Your task to perform on an android device: toggle improve location accuracy Image 0: 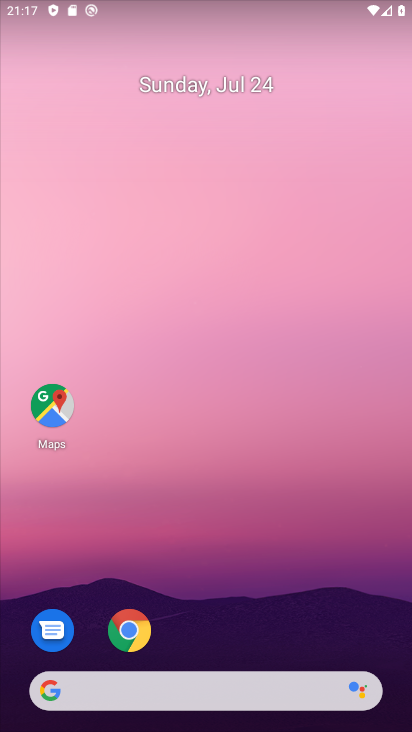
Step 0: drag from (319, 632) to (329, 16)
Your task to perform on an android device: toggle improve location accuracy Image 1: 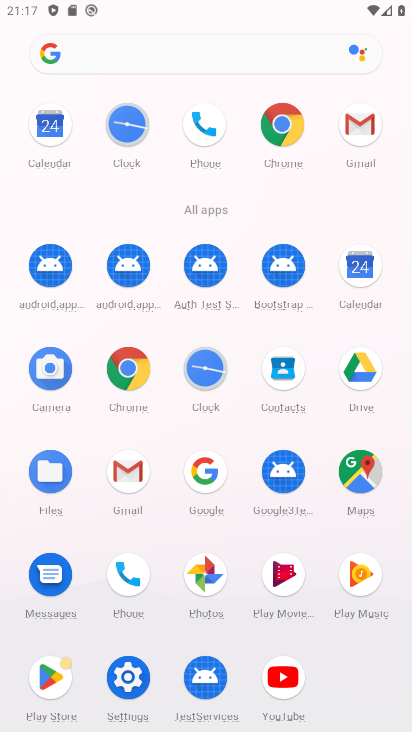
Step 1: click (125, 665)
Your task to perform on an android device: toggle improve location accuracy Image 2: 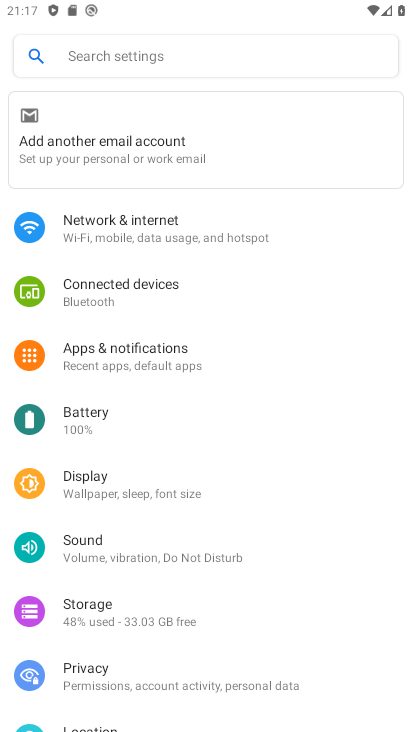
Step 2: drag from (160, 653) to (168, 240)
Your task to perform on an android device: toggle improve location accuracy Image 3: 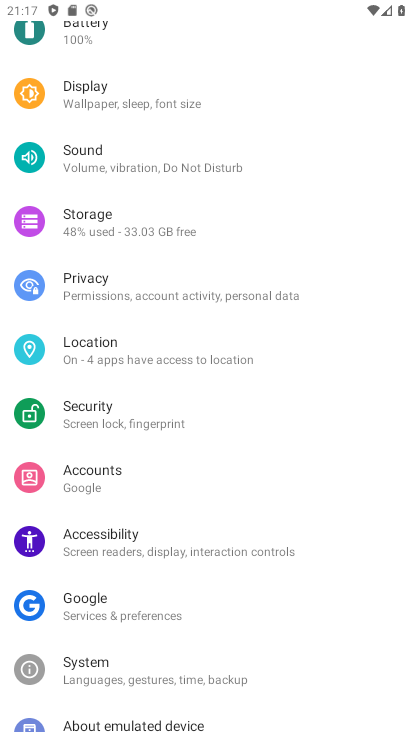
Step 3: click (106, 354)
Your task to perform on an android device: toggle improve location accuracy Image 4: 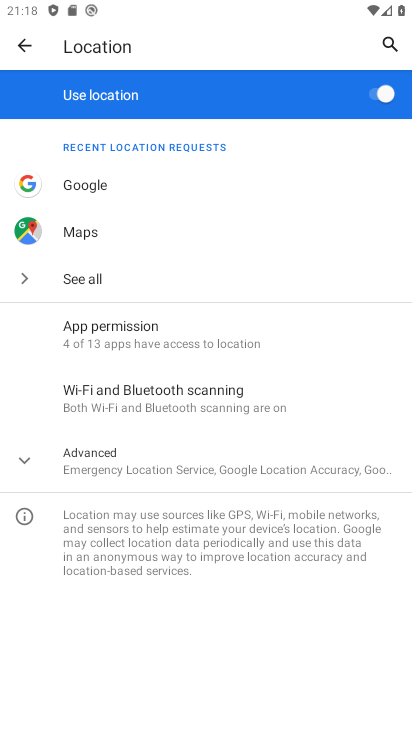
Step 4: click (119, 459)
Your task to perform on an android device: toggle improve location accuracy Image 5: 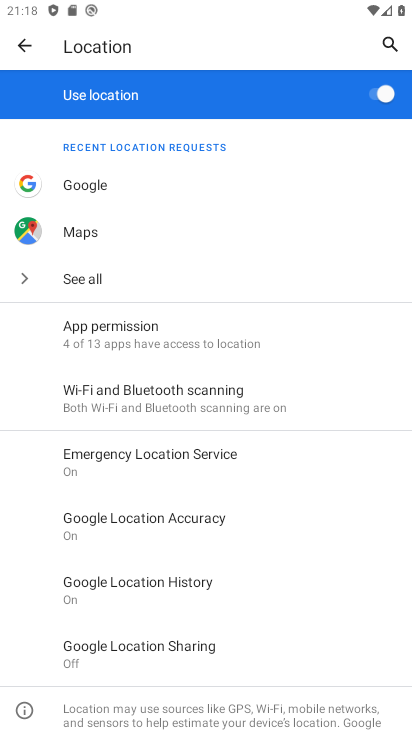
Step 5: drag from (217, 579) to (195, 329)
Your task to perform on an android device: toggle improve location accuracy Image 6: 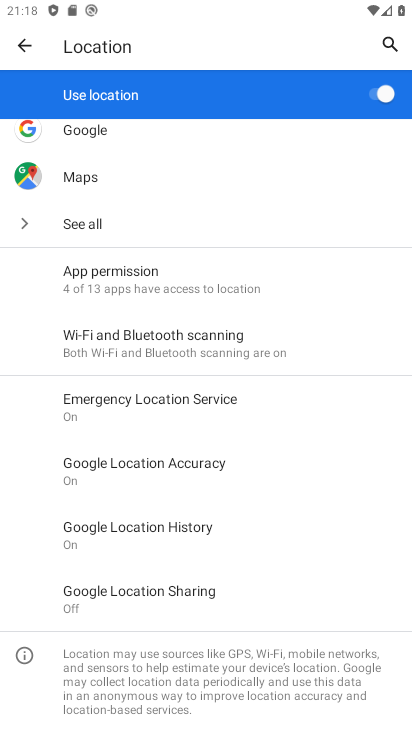
Step 6: click (171, 483)
Your task to perform on an android device: toggle improve location accuracy Image 7: 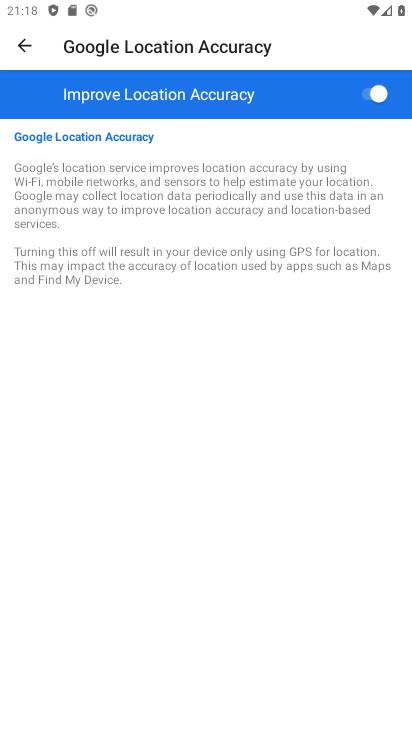
Step 7: click (374, 87)
Your task to perform on an android device: toggle improve location accuracy Image 8: 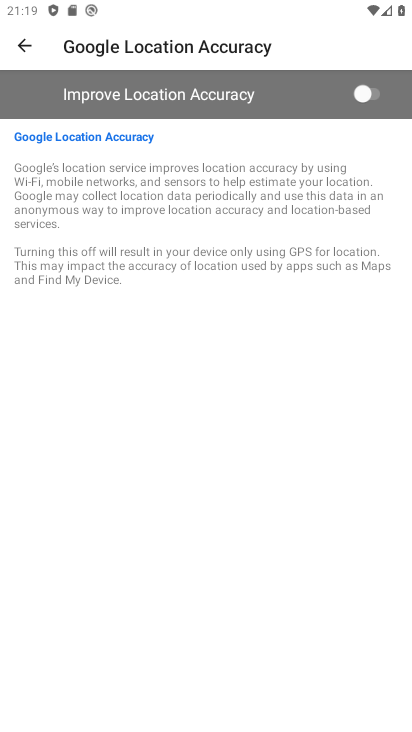
Step 8: task complete